Your task to perform on an android device: turn vacation reply on in the gmail app Image 0: 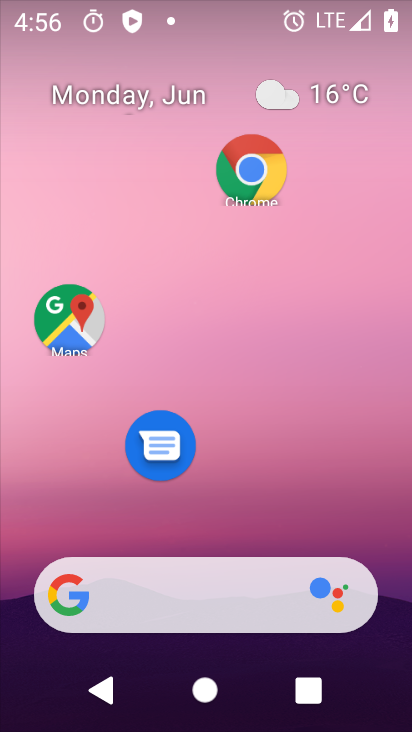
Step 0: drag from (238, 499) to (218, 324)
Your task to perform on an android device: turn vacation reply on in the gmail app Image 1: 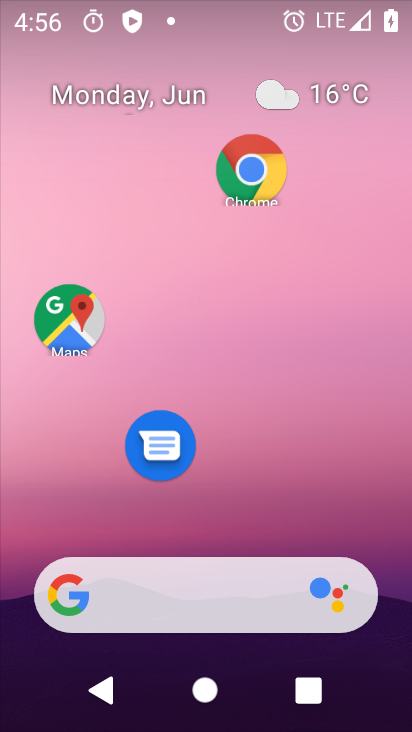
Step 1: drag from (206, 506) to (223, 283)
Your task to perform on an android device: turn vacation reply on in the gmail app Image 2: 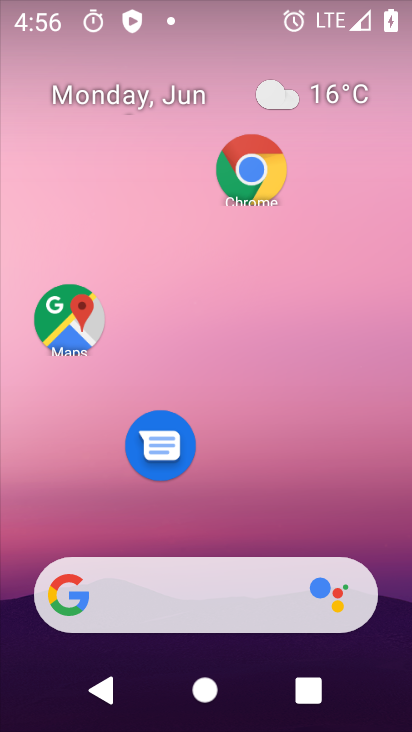
Step 2: drag from (197, 502) to (184, 407)
Your task to perform on an android device: turn vacation reply on in the gmail app Image 3: 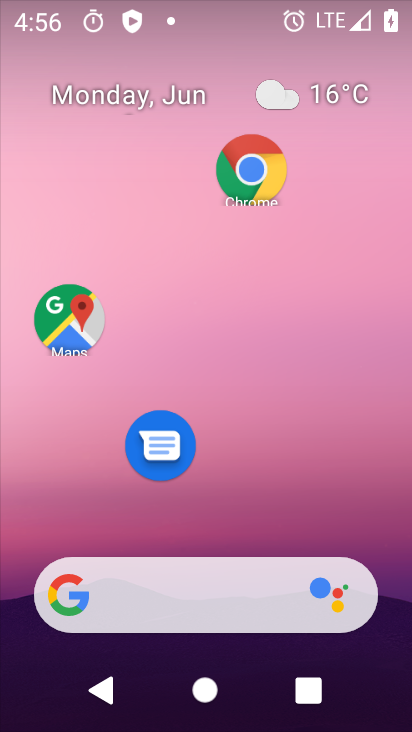
Step 3: drag from (232, 515) to (248, 327)
Your task to perform on an android device: turn vacation reply on in the gmail app Image 4: 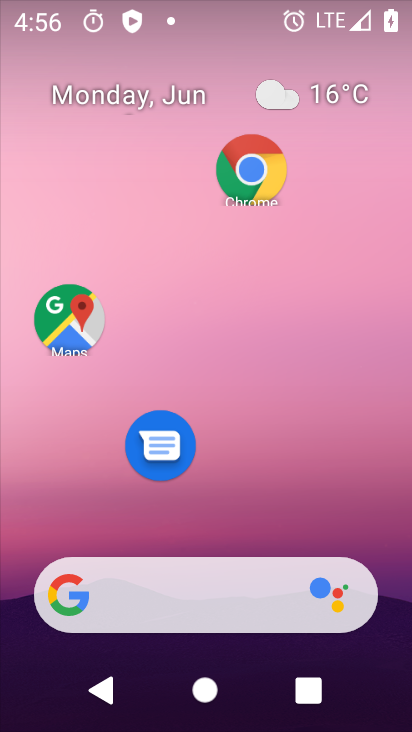
Step 4: drag from (208, 499) to (228, 400)
Your task to perform on an android device: turn vacation reply on in the gmail app Image 5: 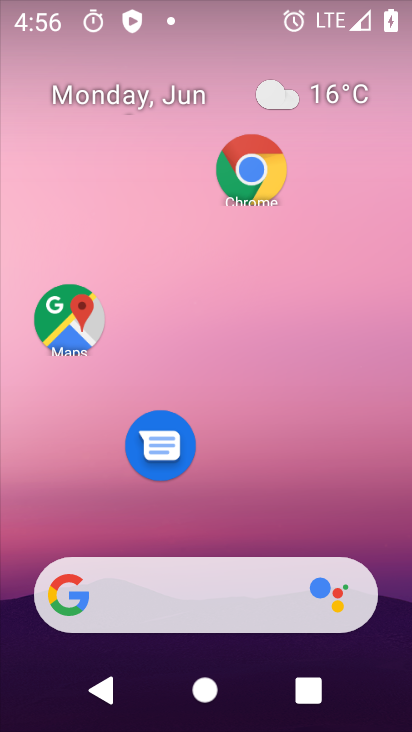
Step 5: drag from (220, 507) to (181, 11)
Your task to perform on an android device: turn vacation reply on in the gmail app Image 6: 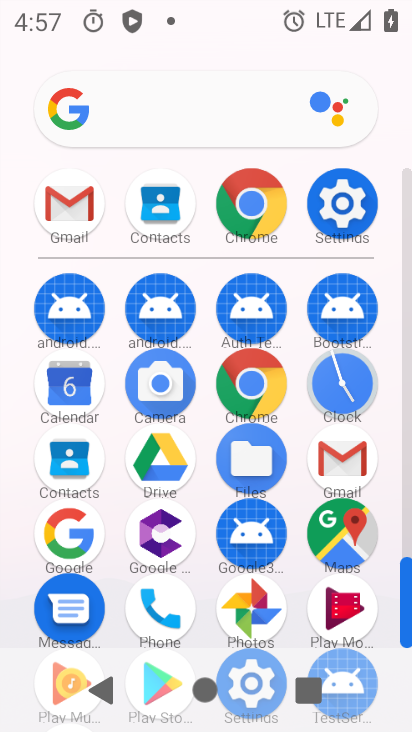
Step 6: click (74, 209)
Your task to perform on an android device: turn vacation reply on in the gmail app Image 7: 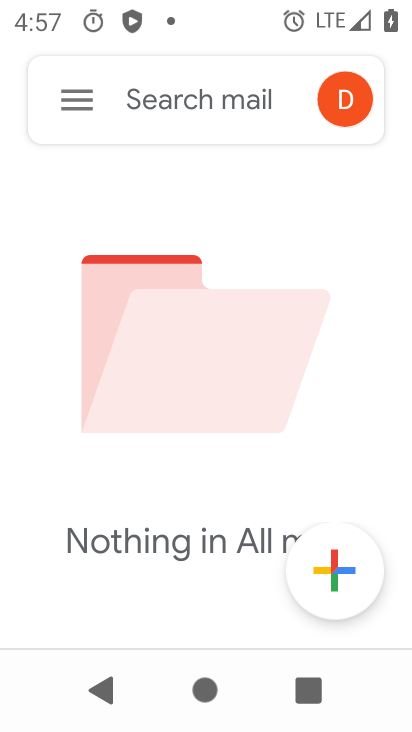
Step 7: click (72, 112)
Your task to perform on an android device: turn vacation reply on in the gmail app Image 8: 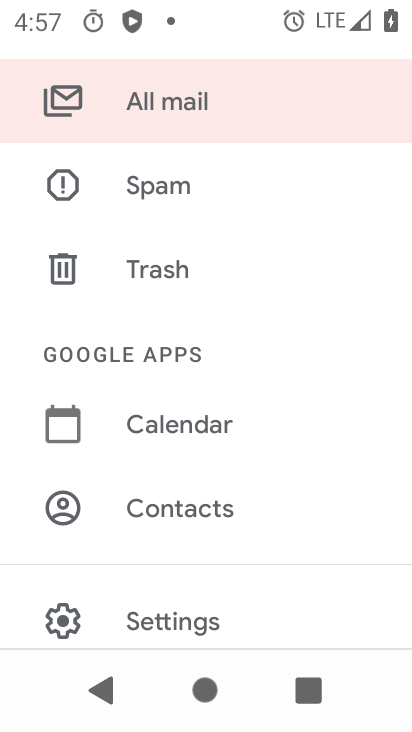
Step 8: click (203, 620)
Your task to perform on an android device: turn vacation reply on in the gmail app Image 9: 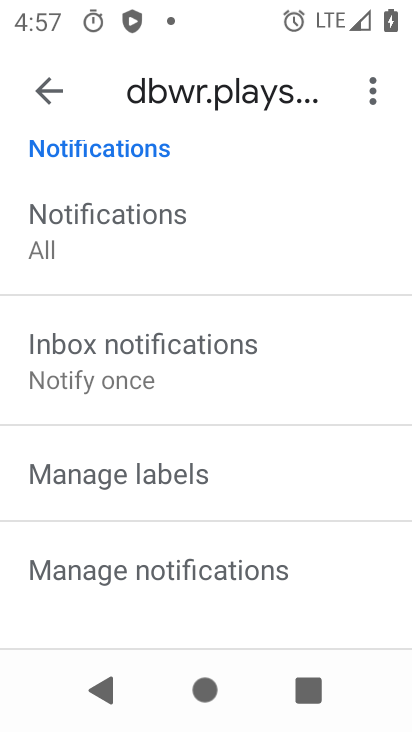
Step 9: drag from (204, 541) to (194, 202)
Your task to perform on an android device: turn vacation reply on in the gmail app Image 10: 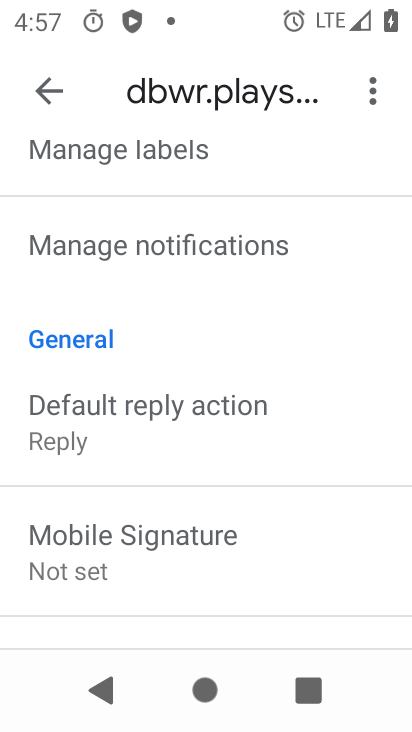
Step 10: drag from (205, 579) to (208, 225)
Your task to perform on an android device: turn vacation reply on in the gmail app Image 11: 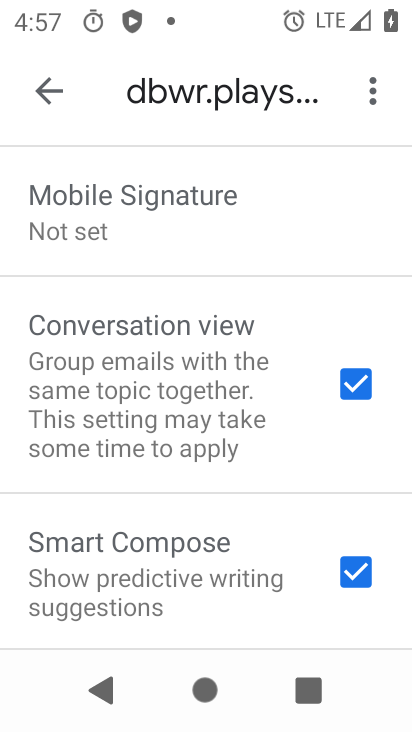
Step 11: drag from (162, 486) to (213, 320)
Your task to perform on an android device: turn vacation reply on in the gmail app Image 12: 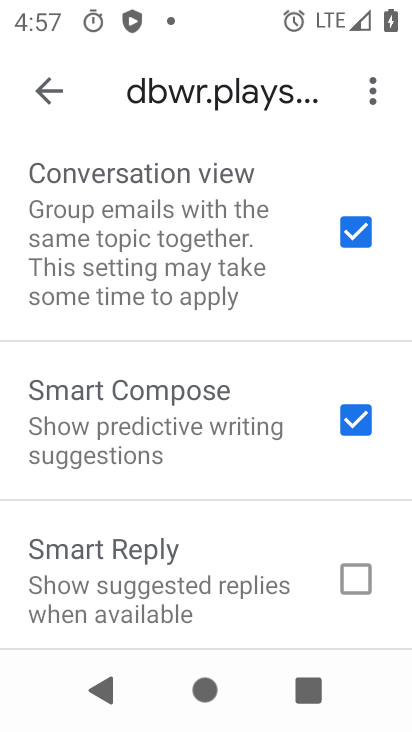
Step 12: drag from (183, 528) to (205, 265)
Your task to perform on an android device: turn vacation reply on in the gmail app Image 13: 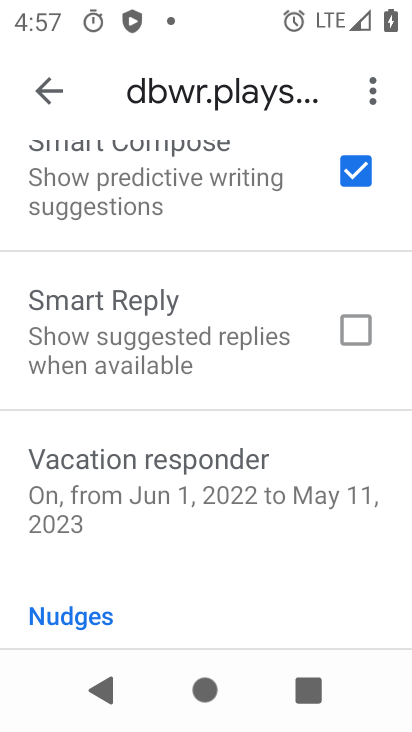
Step 13: click (181, 511)
Your task to perform on an android device: turn vacation reply on in the gmail app Image 14: 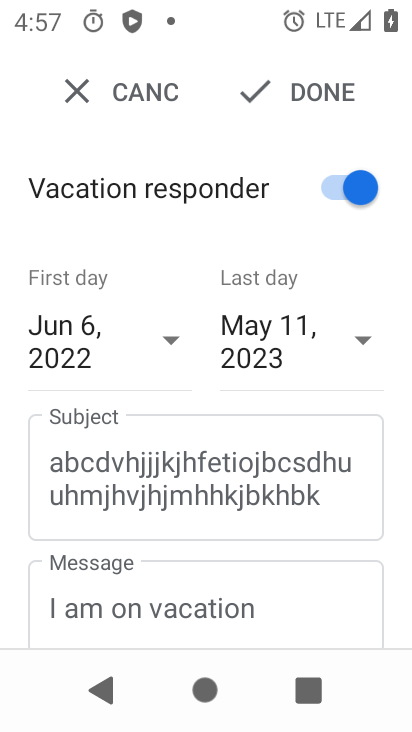
Step 14: task complete